Your task to perform on an android device: turn off location history Image 0: 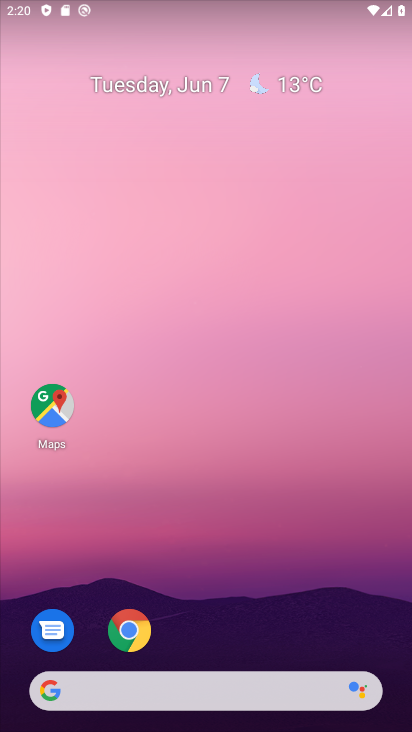
Step 0: drag from (270, 672) to (33, 1)
Your task to perform on an android device: turn off location history Image 1: 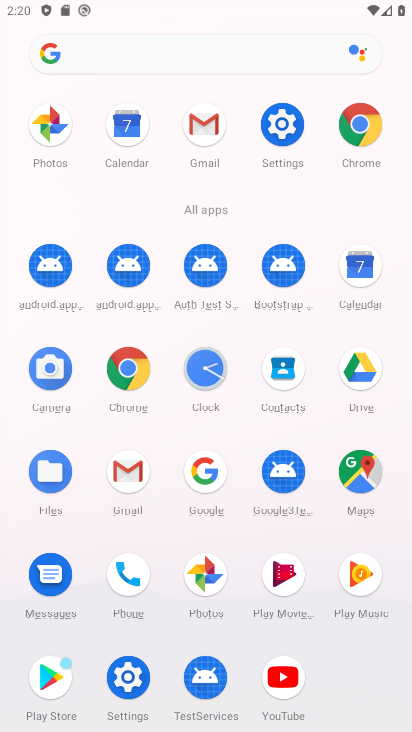
Step 1: click (305, 129)
Your task to perform on an android device: turn off location history Image 2: 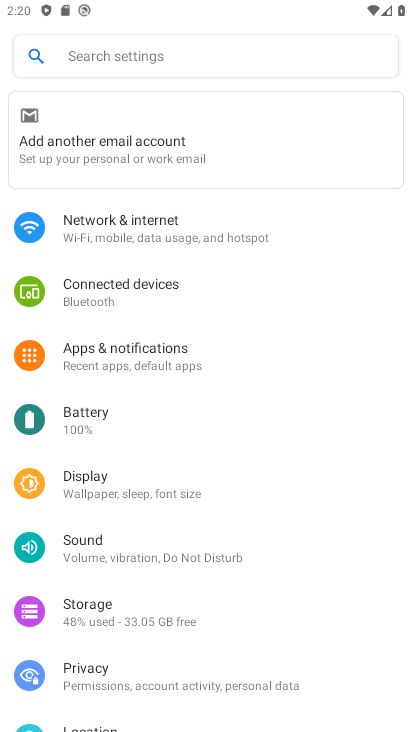
Step 2: drag from (114, 685) to (189, 178)
Your task to perform on an android device: turn off location history Image 3: 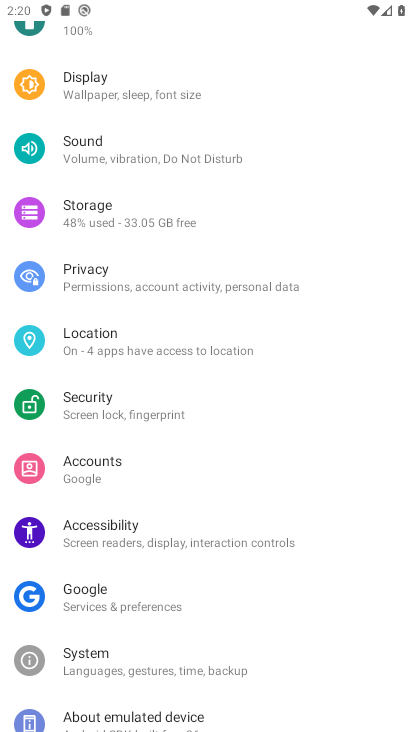
Step 3: click (119, 350)
Your task to perform on an android device: turn off location history Image 4: 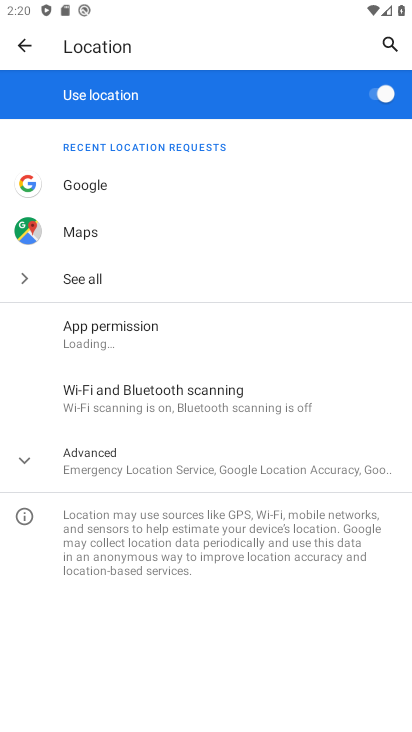
Step 4: click (168, 463)
Your task to perform on an android device: turn off location history Image 5: 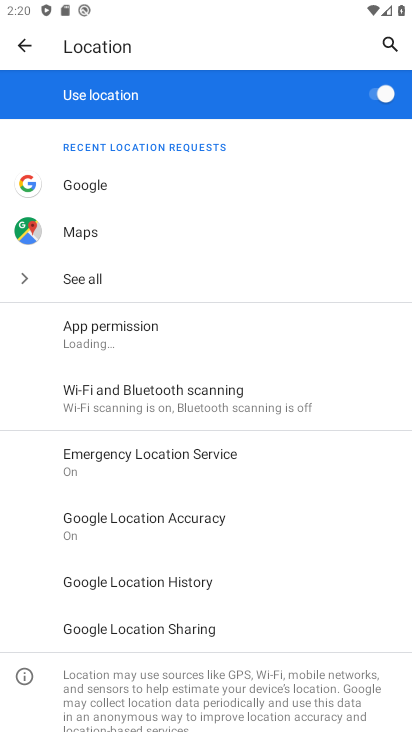
Step 5: click (200, 575)
Your task to perform on an android device: turn off location history Image 6: 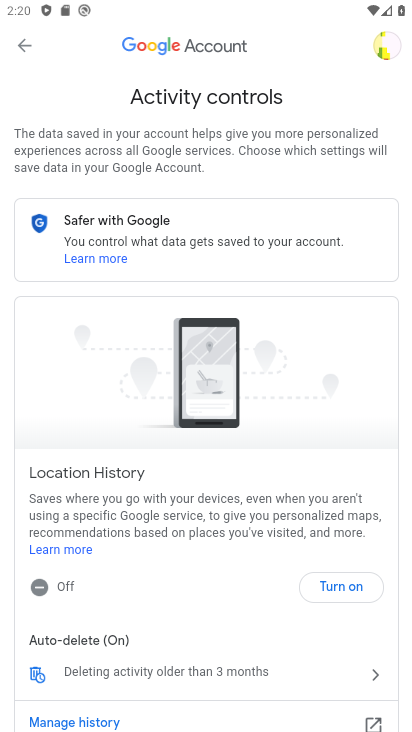
Step 6: task complete